Your task to perform on an android device: Look up the best rated bike on Walmart Image 0: 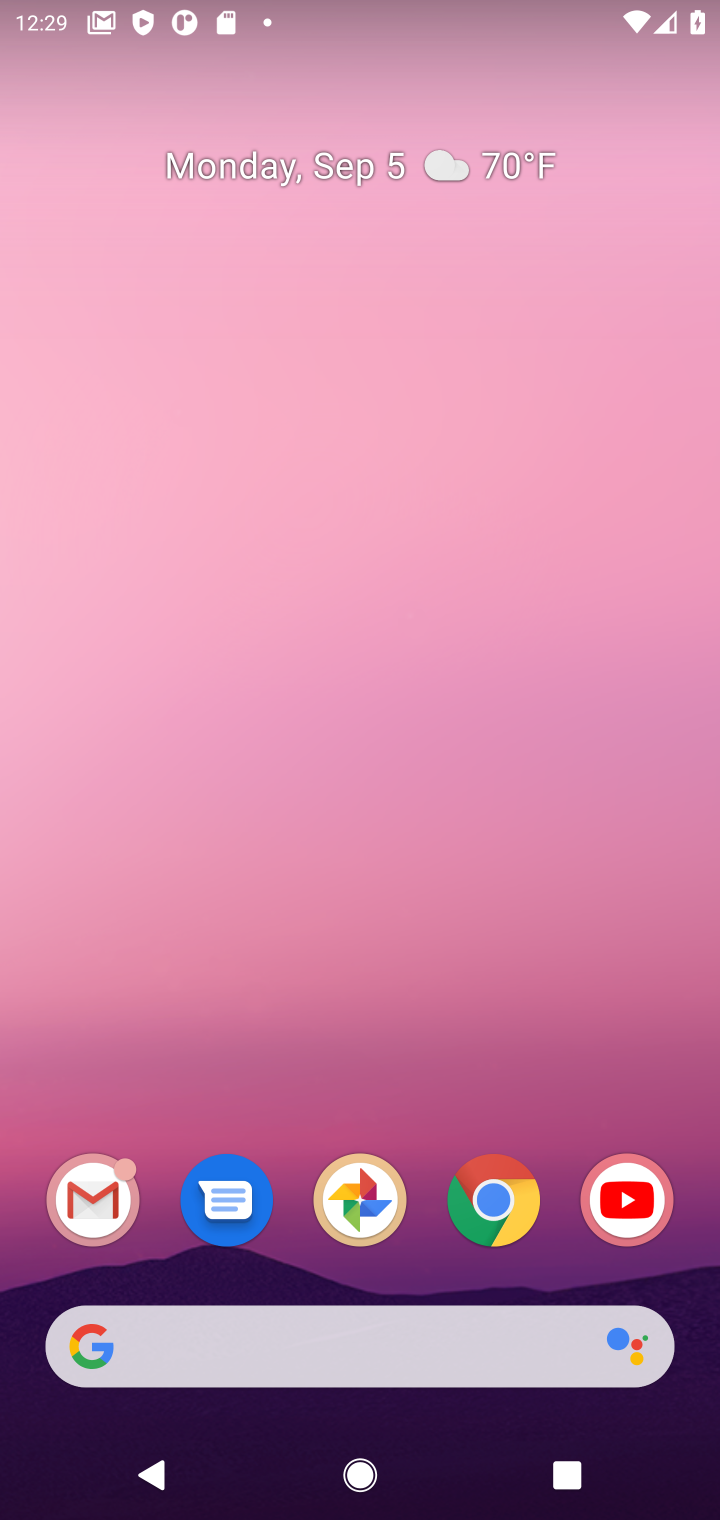
Step 0: drag from (438, 1270) to (415, 398)
Your task to perform on an android device: Look up the best rated bike on Walmart Image 1: 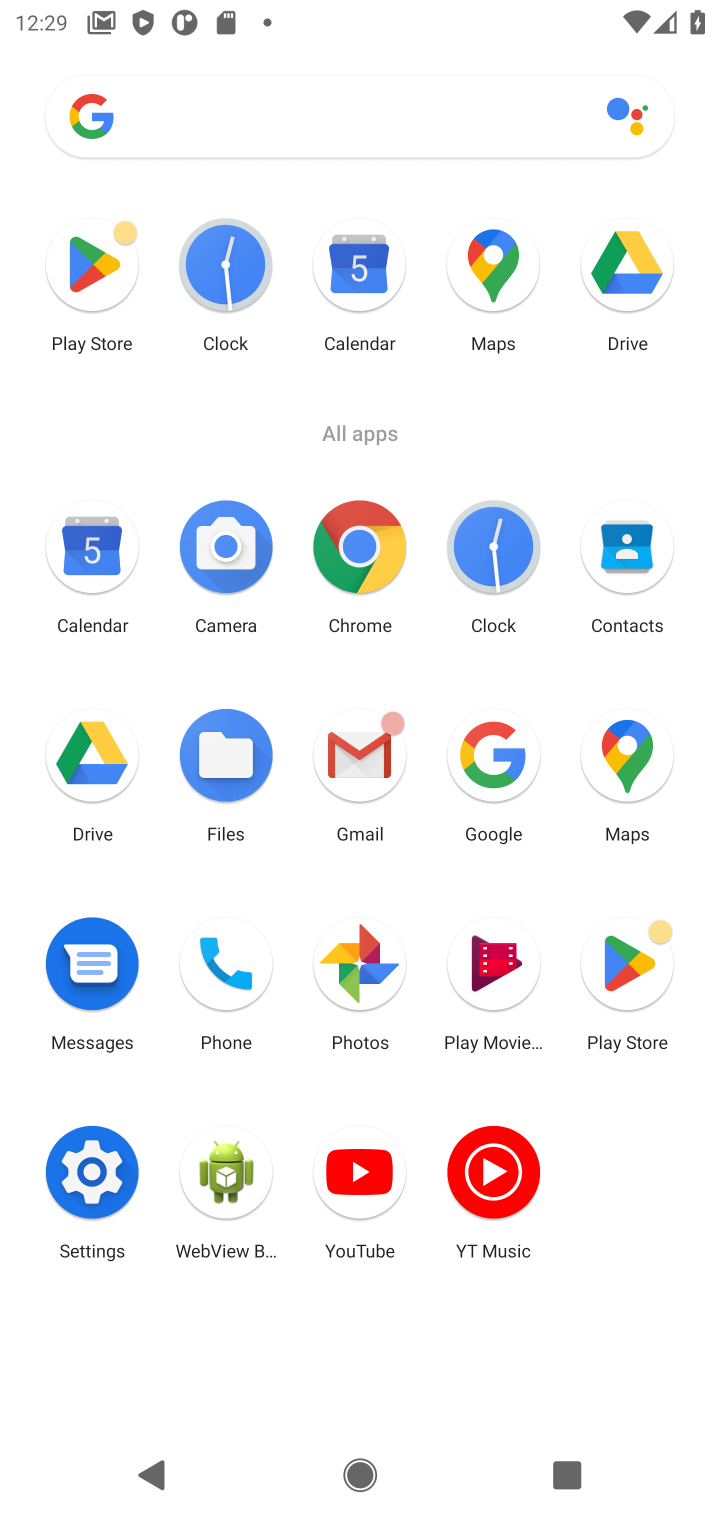
Step 1: click (356, 549)
Your task to perform on an android device: Look up the best rated bike on Walmart Image 2: 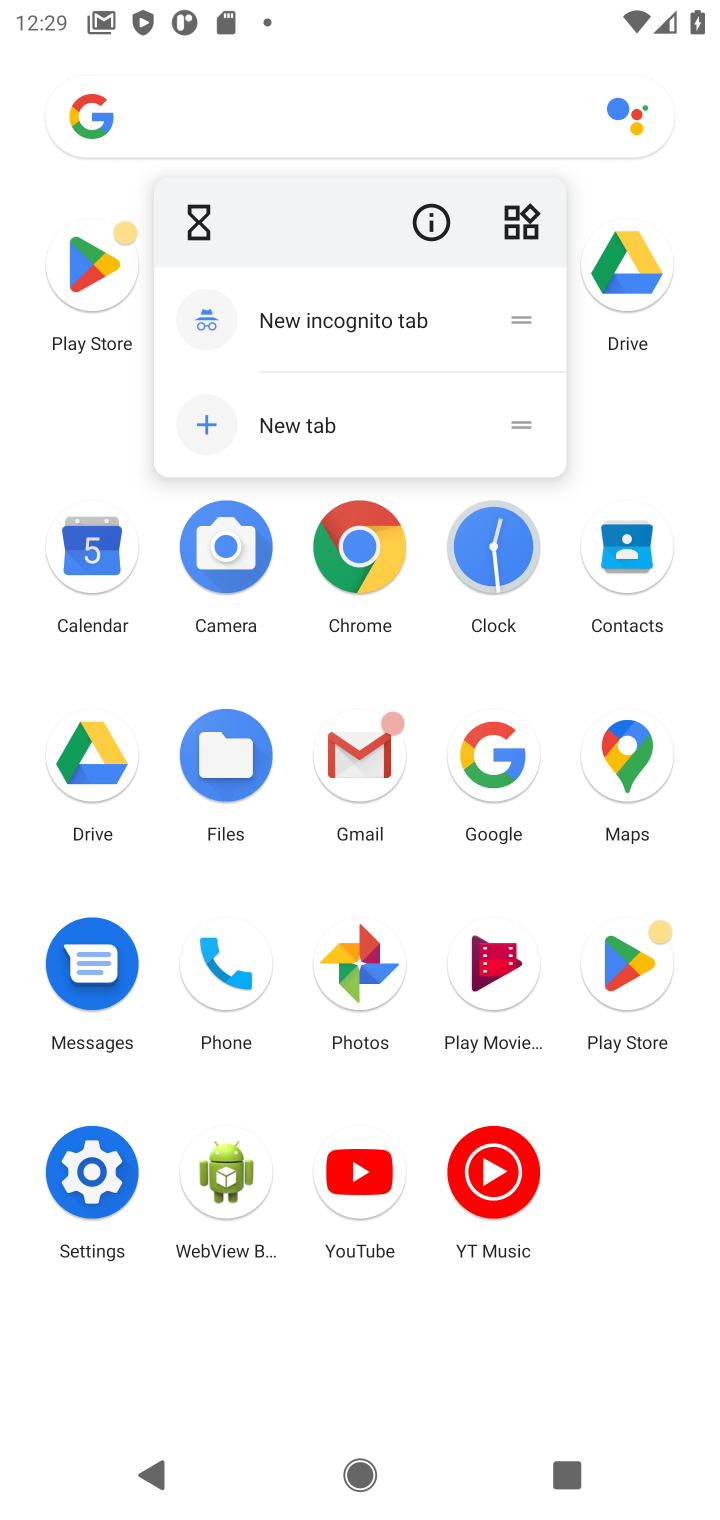
Step 2: click (343, 598)
Your task to perform on an android device: Look up the best rated bike on Walmart Image 3: 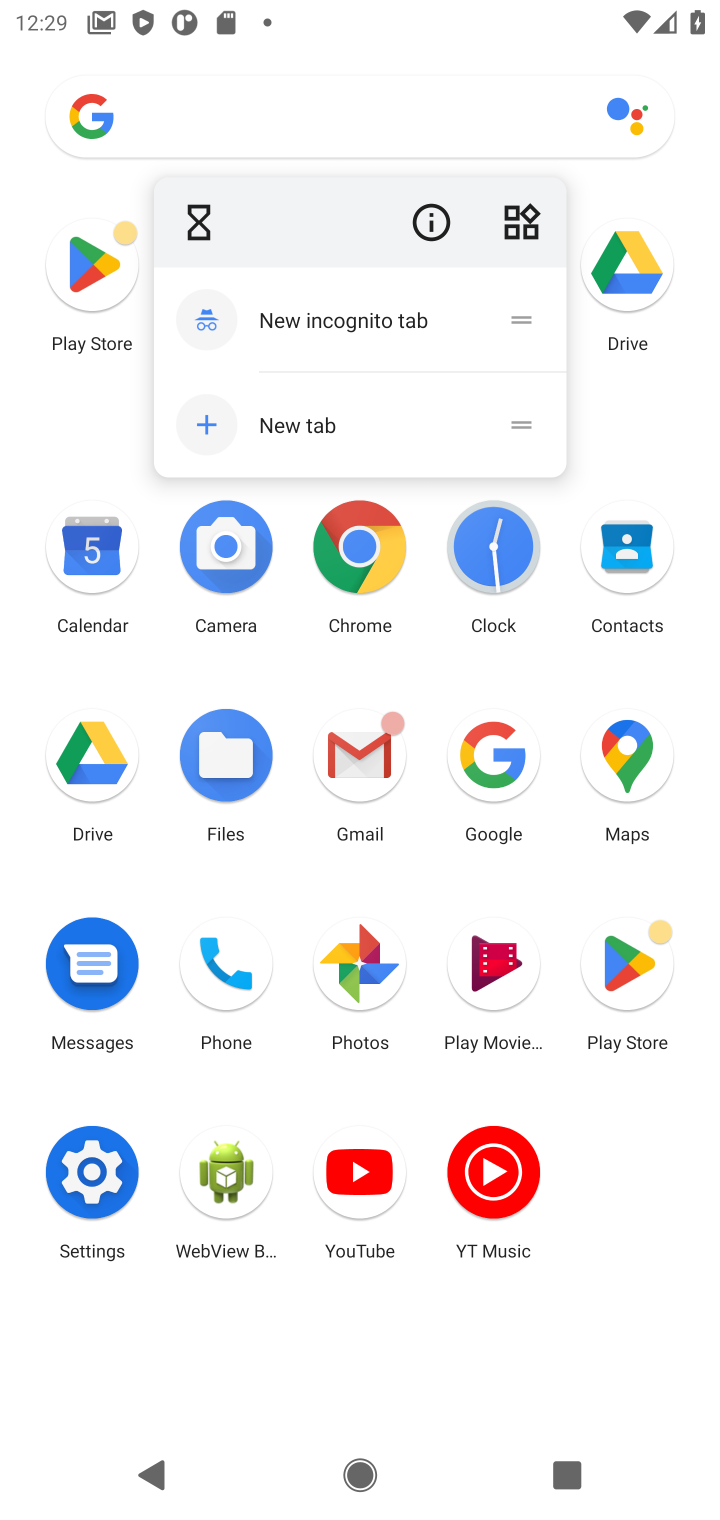
Step 3: click (346, 594)
Your task to perform on an android device: Look up the best rated bike on Walmart Image 4: 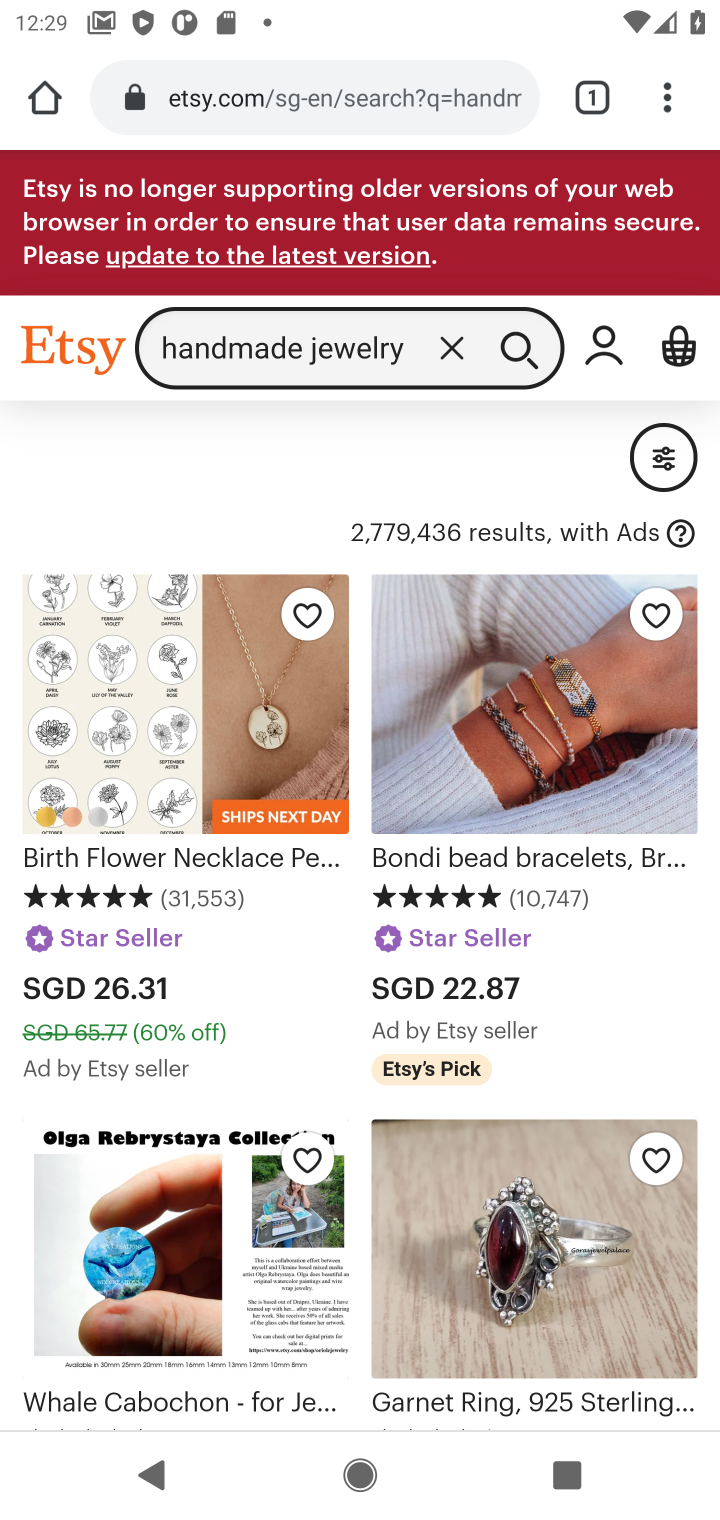
Step 4: click (417, 88)
Your task to perform on an android device: Look up the best rated bike on Walmart Image 5: 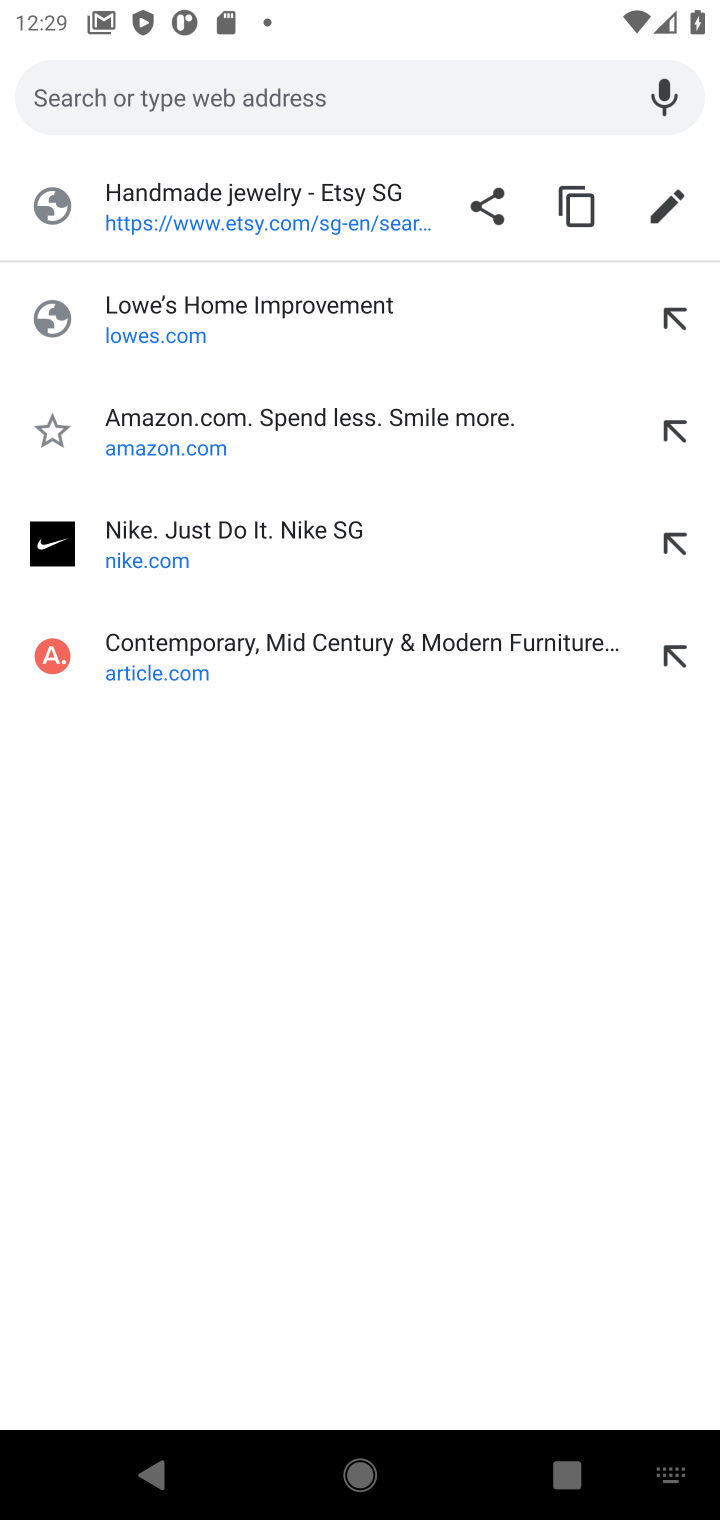
Step 5: type "walmart"
Your task to perform on an android device: Look up the best rated bike on Walmart Image 6: 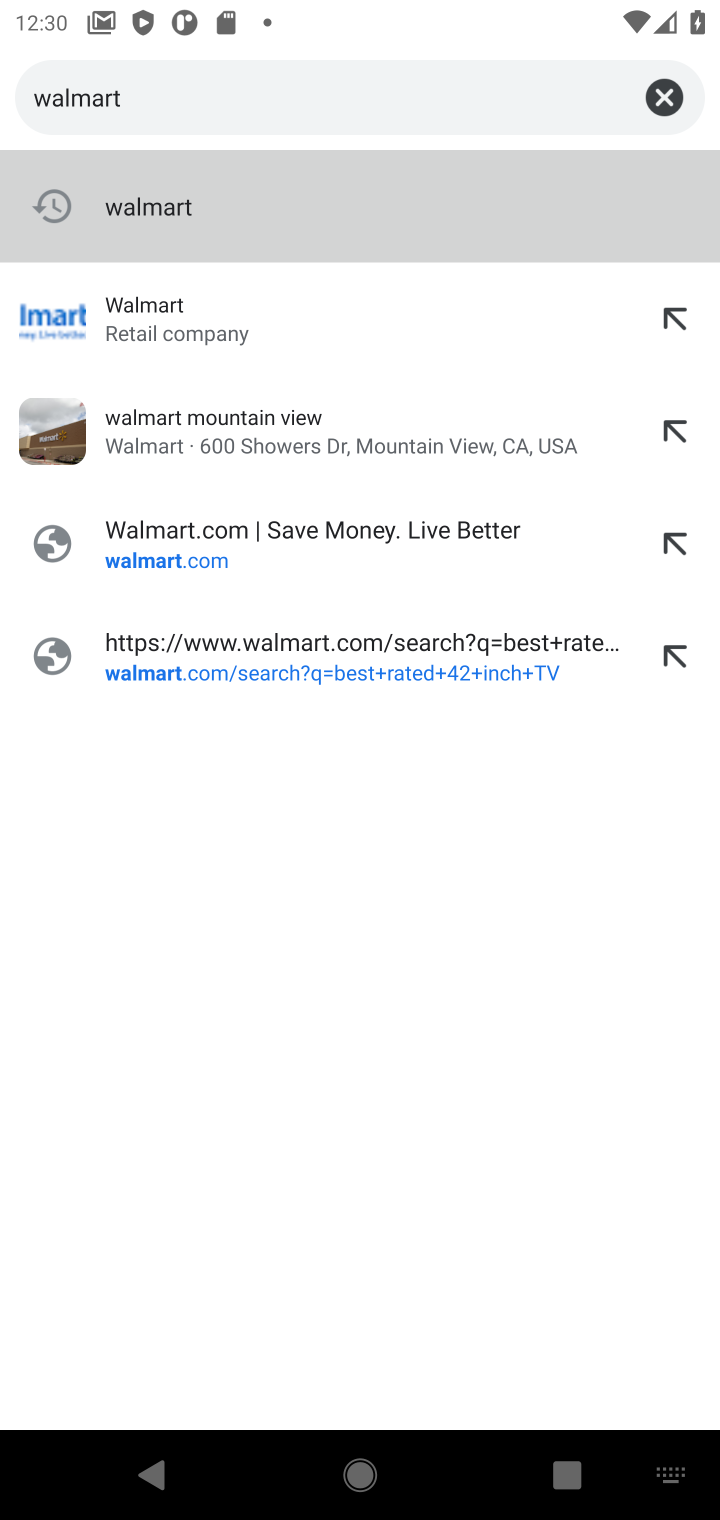
Step 6: click (306, 327)
Your task to perform on an android device: Look up the best rated bike on Walmart Image 7: 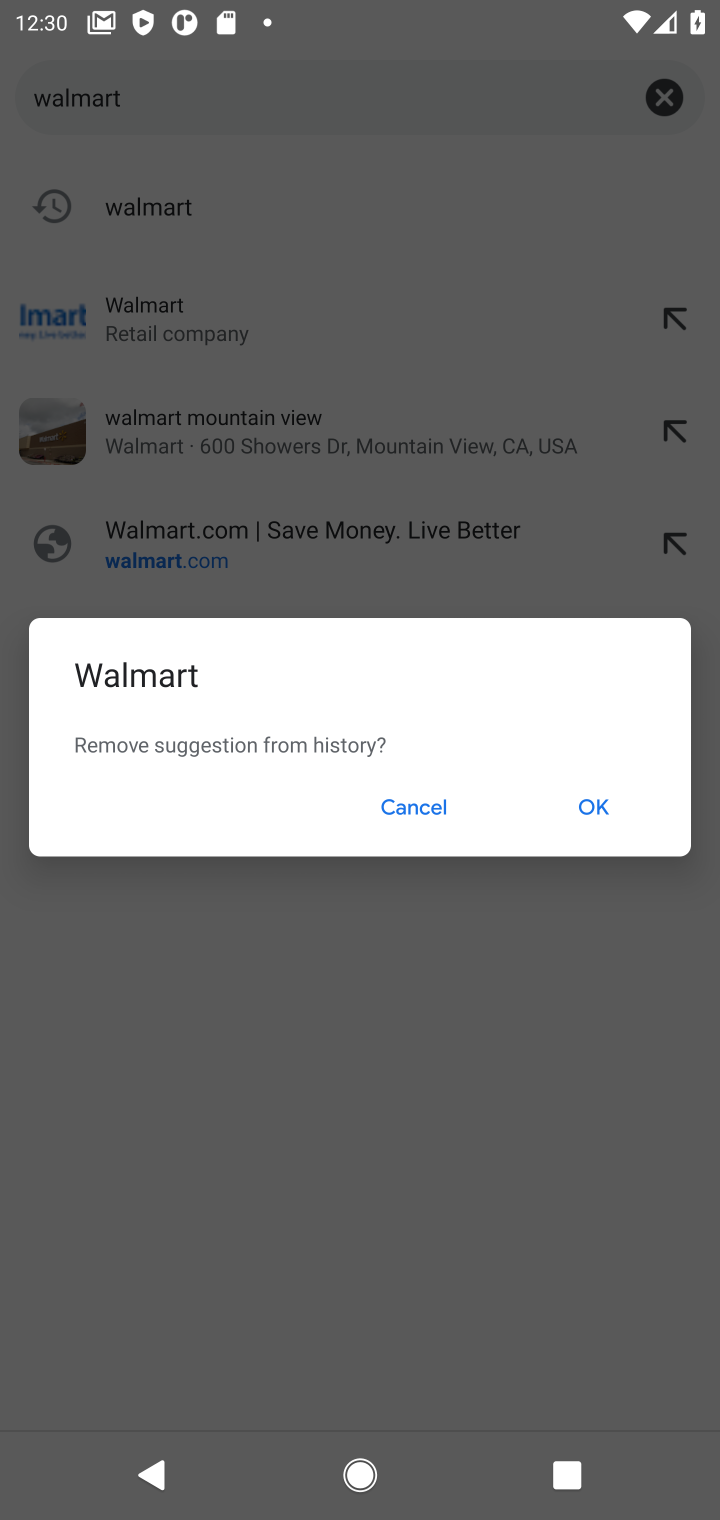
Step 7: click (409, 802)
Your task to perform on an android device: Look up the best rated bike on Walmart Image 8: 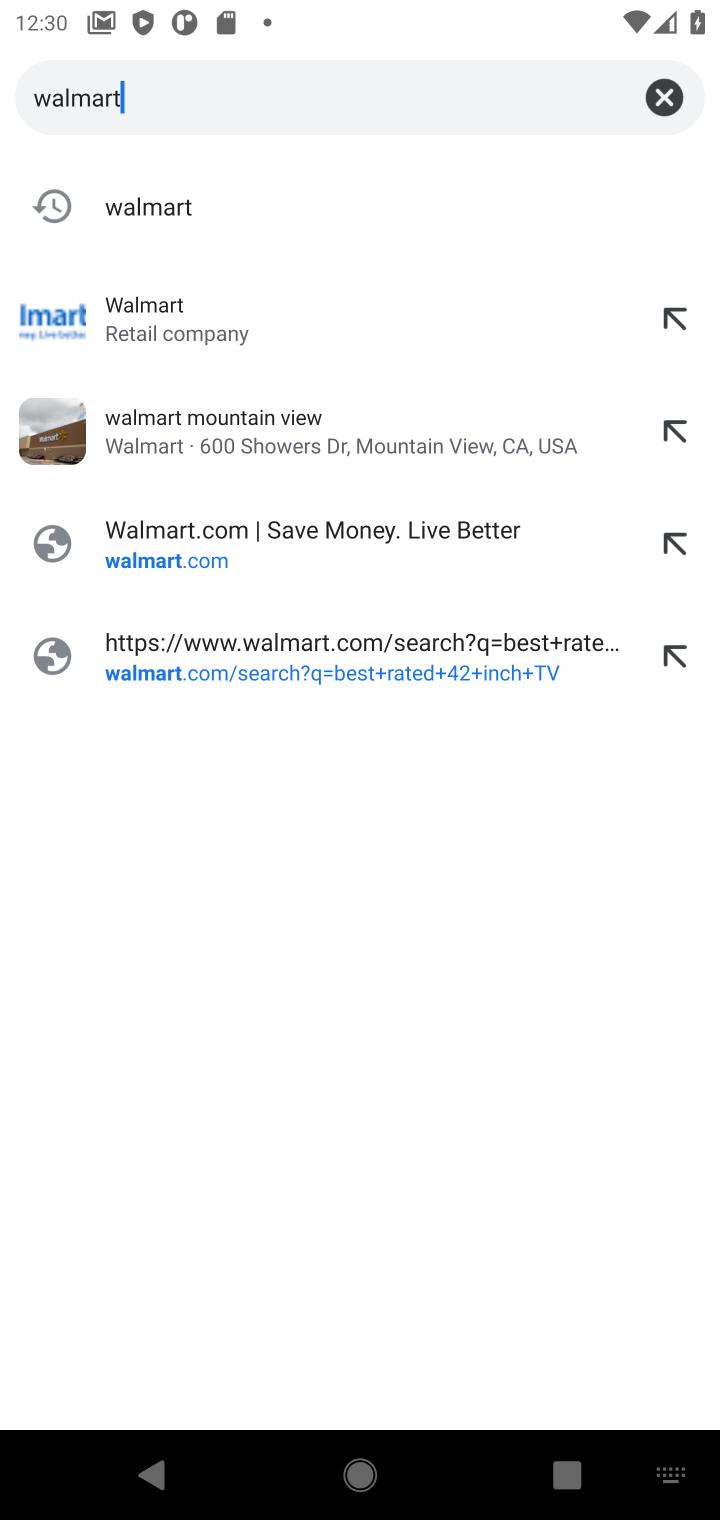
Step 8: click (63, 331)
Your task to perform on an android device: Look up the best rated bike on Walmart Image 9: 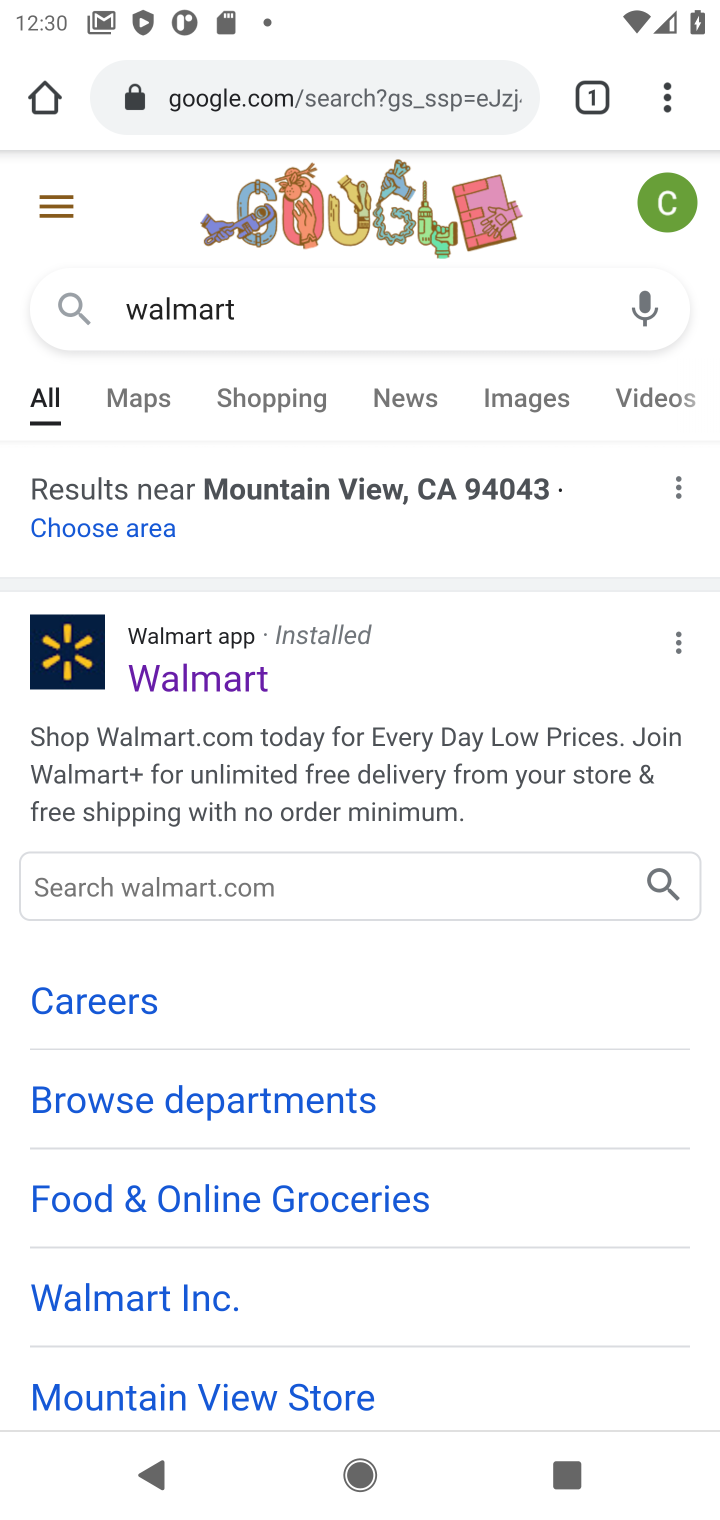
Step 9: click (165, 667)
Your task to perform on an android device: Look up the best rated bike on Walmart Image 10: 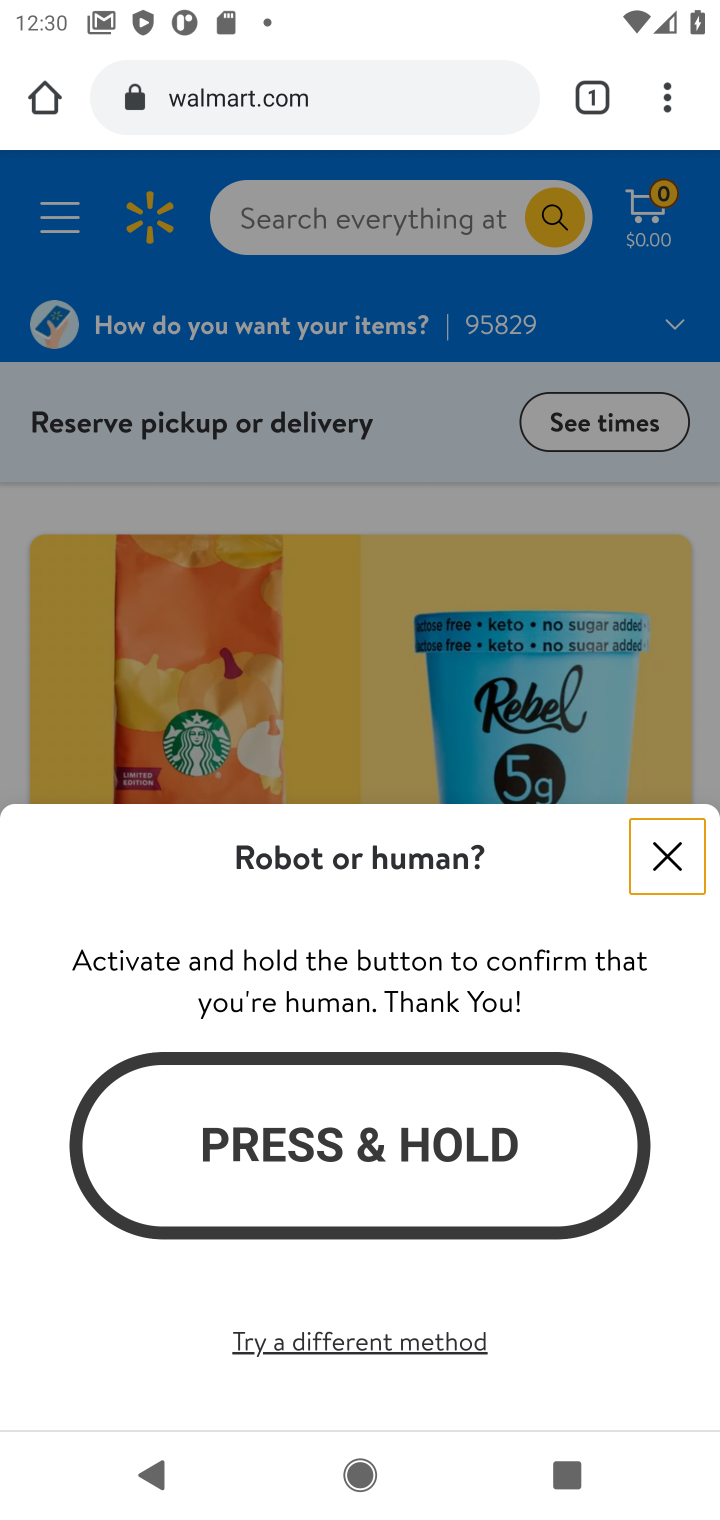
Step 10: click (662, 854)
Your task to perform on an android device: Look up the best rated bike on Walmart Image 11: 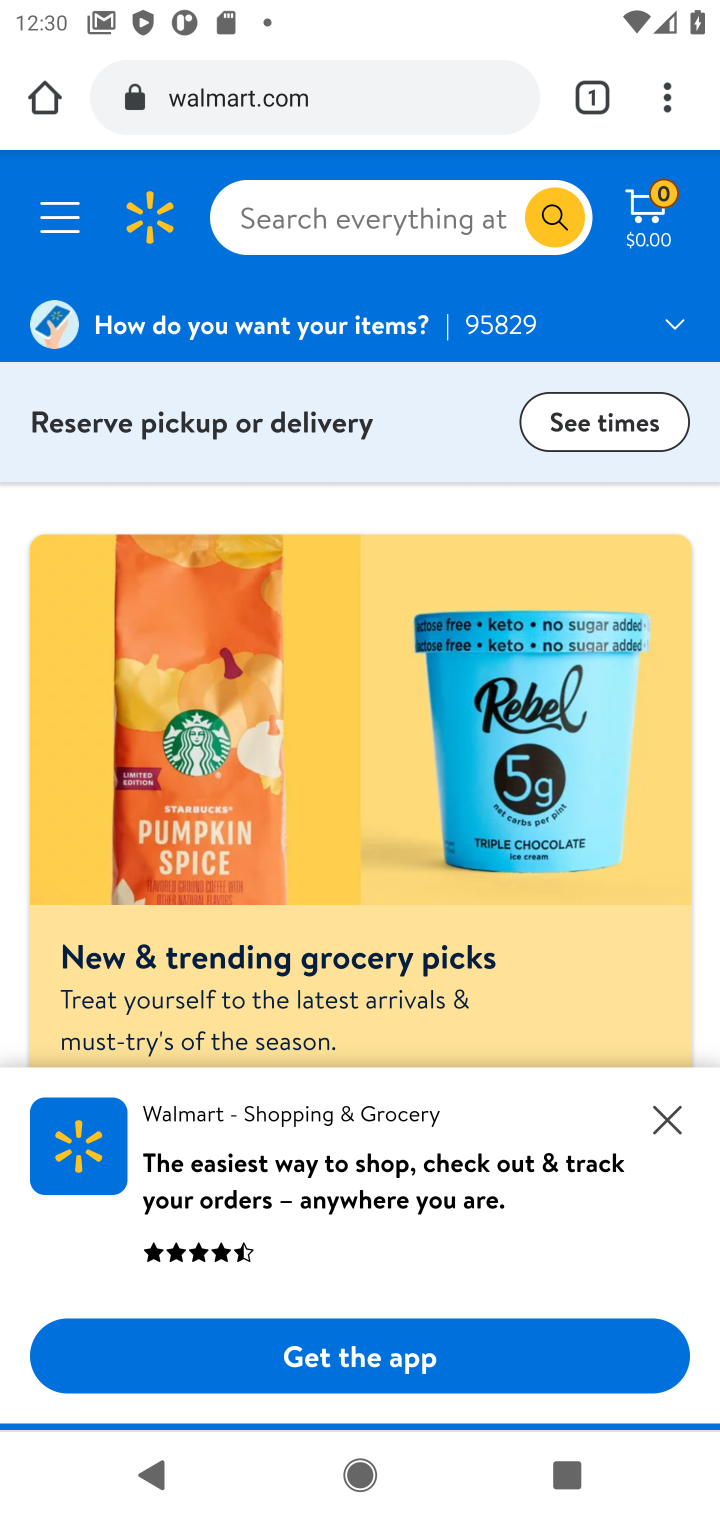
Step 11: click (407, 225)
Your task to perform on an android device: Look up the best rated bike on Walmart Image 12: 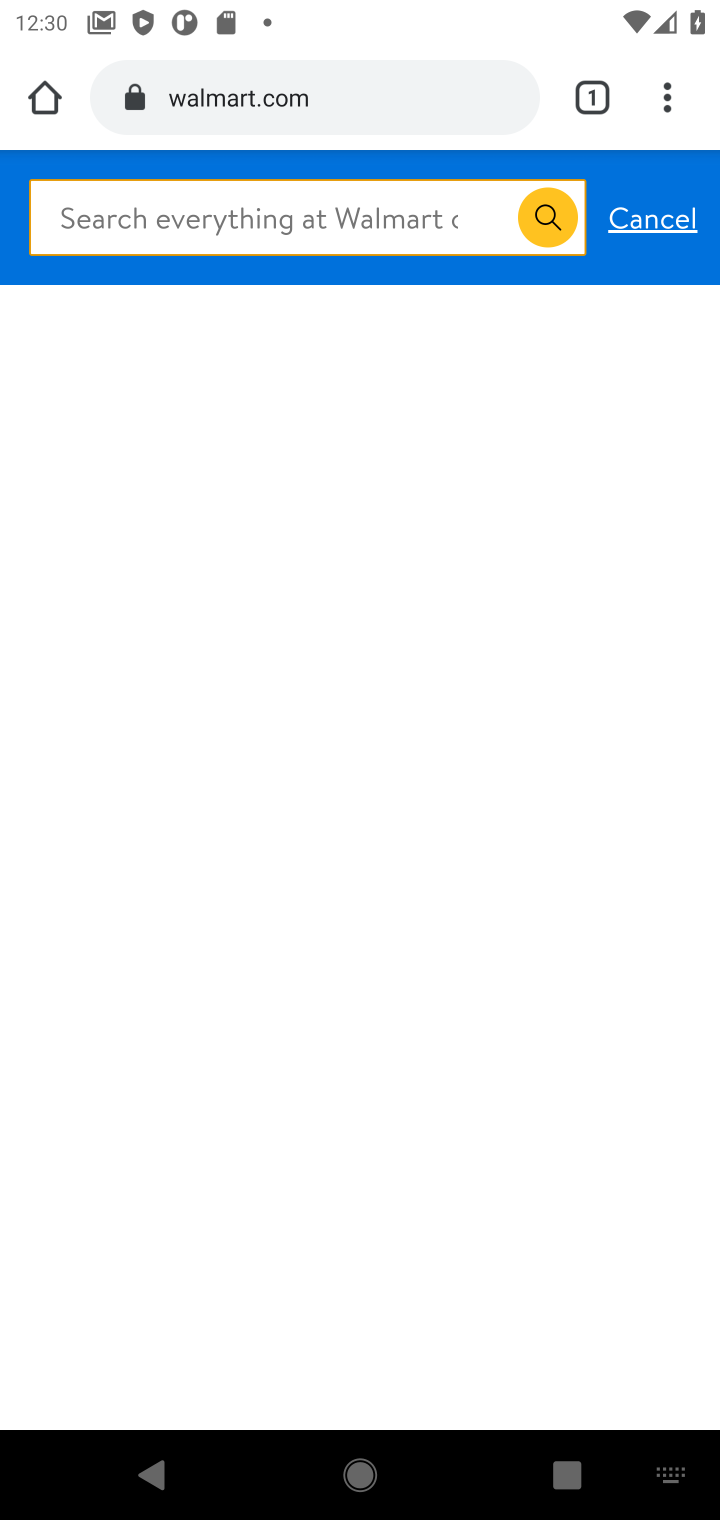
Step 12: type "best rated bike"
Your task to perform on an android device: Look up the best rated bike on Walmart Image 13: 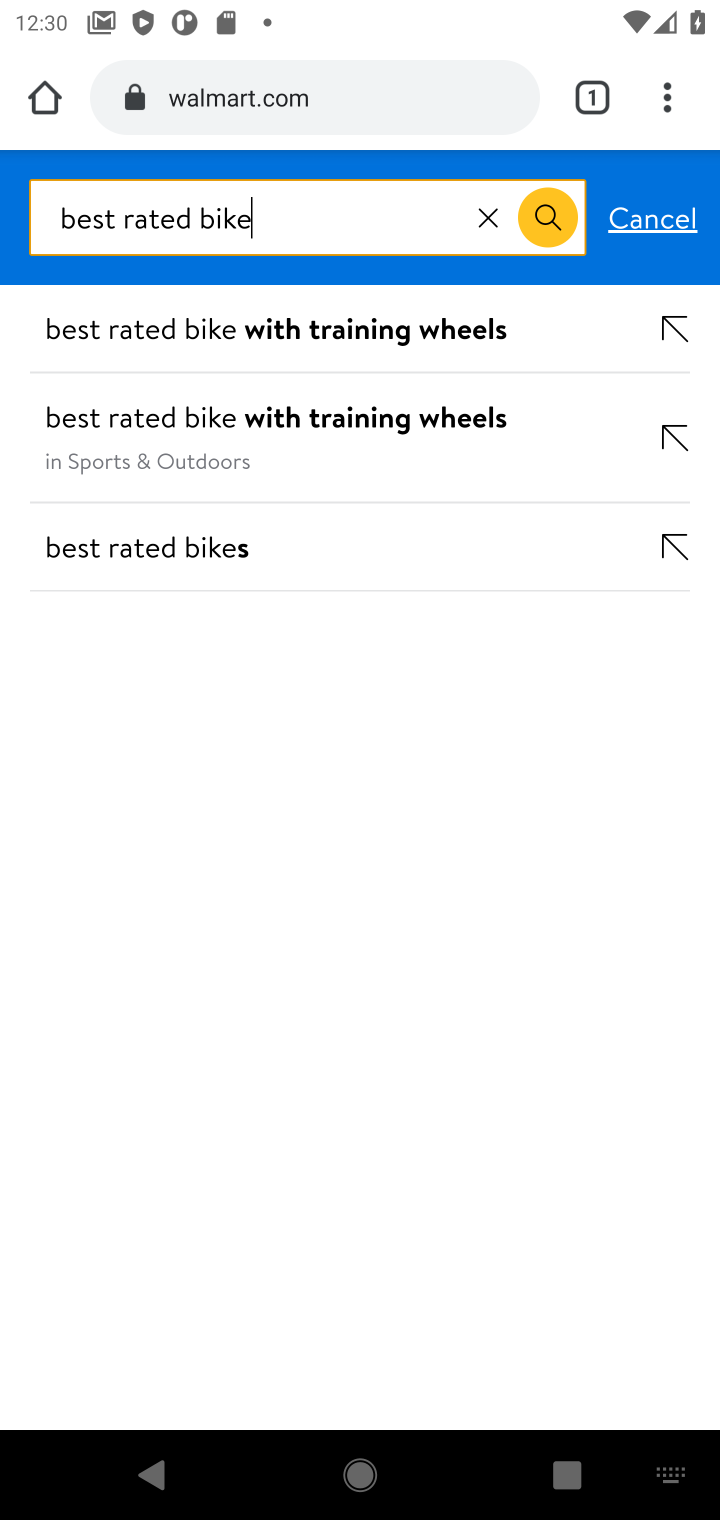
Step 13: click (383, 555)
Your task to perform on an android device: Look up the best rated bike on Walmart Image 14: 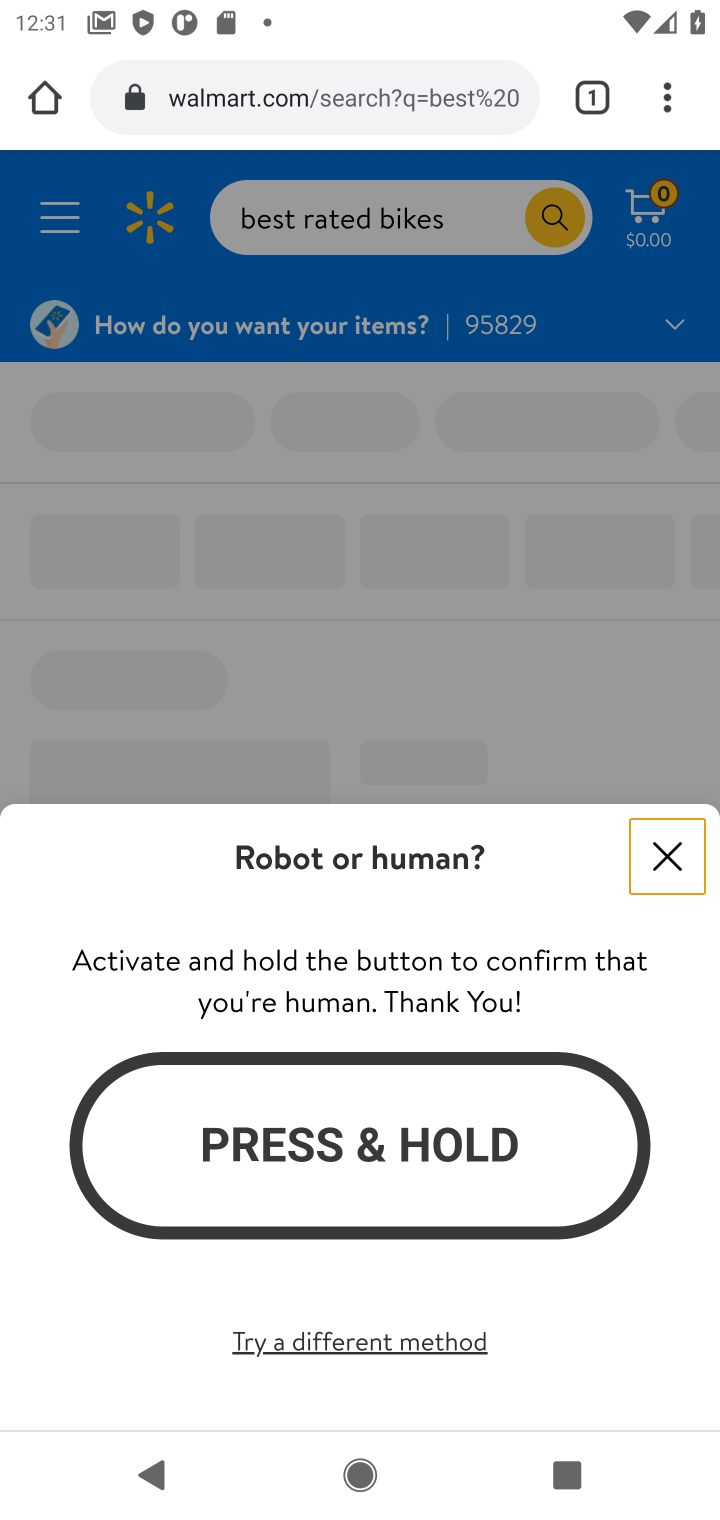
Step 14: click (468, 1153)
Your task to perform on an android device: Look up the best rated bike on Walmart Image 15: 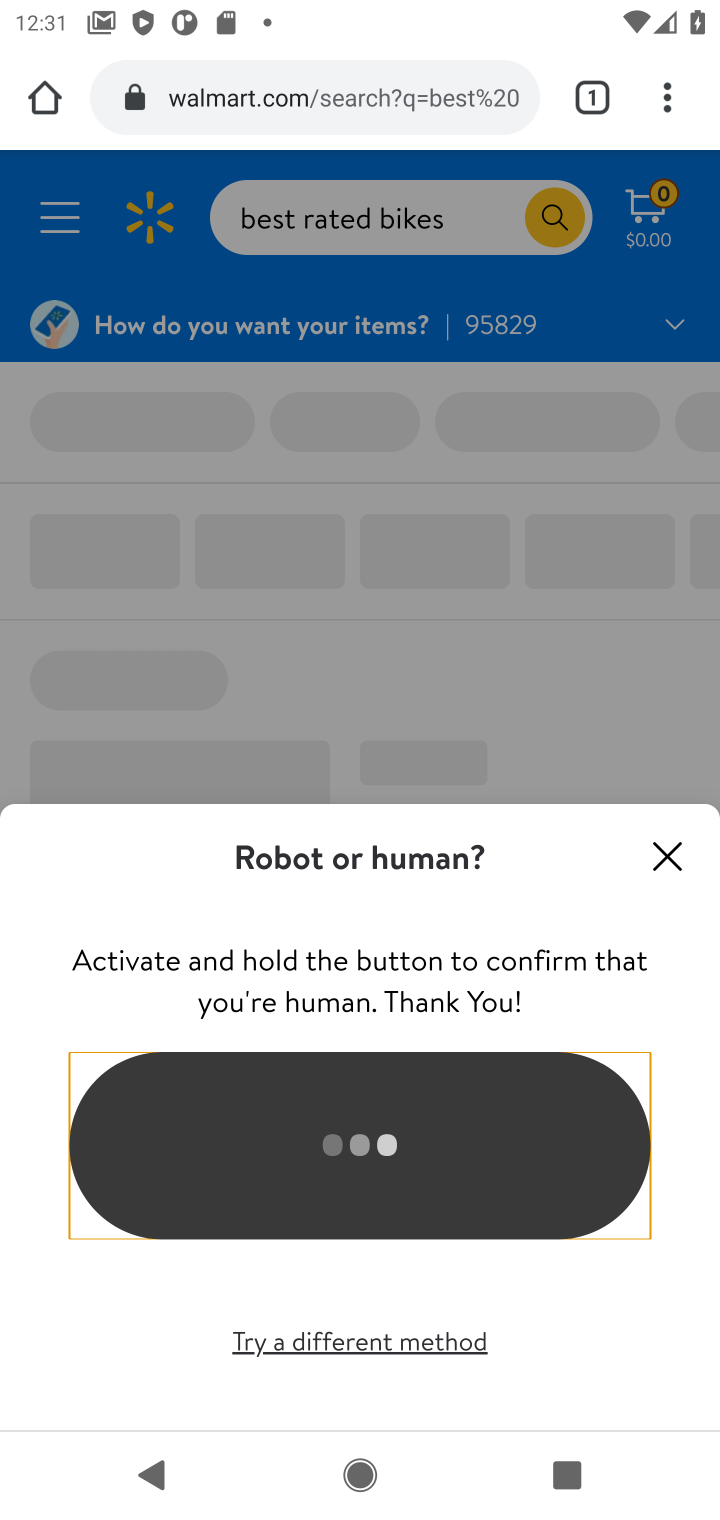
Step 15: task complete